Your task to perform on an android device: change your default location settings in chrome Image 0: 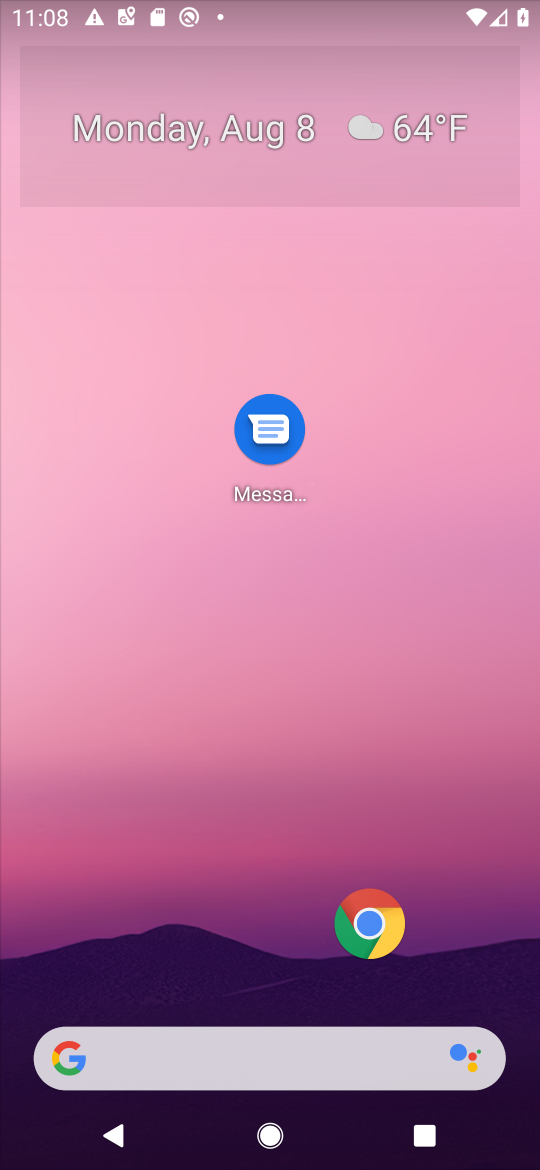
Step 0: task complete